Your task to perform on an android device: What's on my calendar today? Image 0: 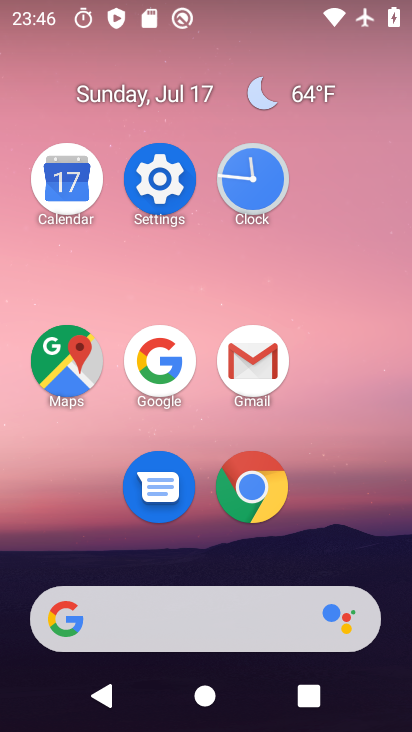
Step 0: click (58, 175)
Your task to perform on an android device: What's on my calendar today? Image 1: 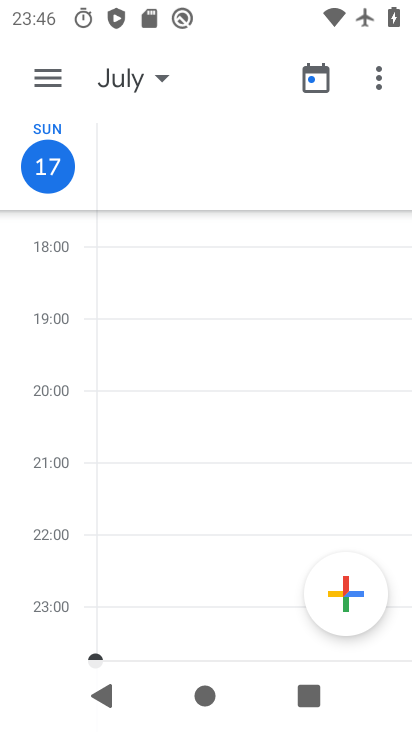
Step 1: task complete